Your task to perform on an android device: Go to Amazon Image 0: 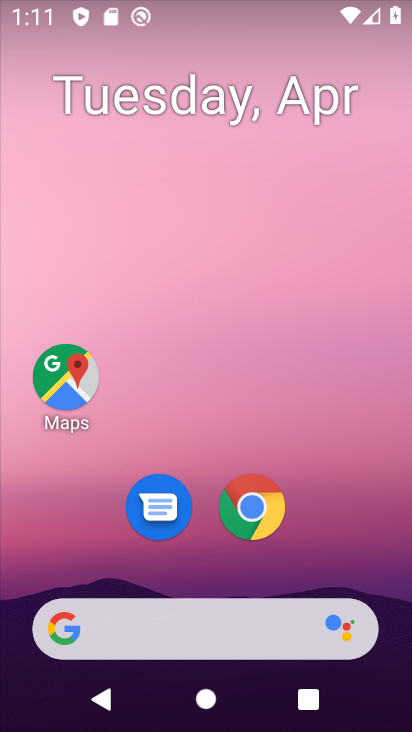
Step 0: click (255, 529)
Your task to perform on an android device: Go to Amazon Image 1: 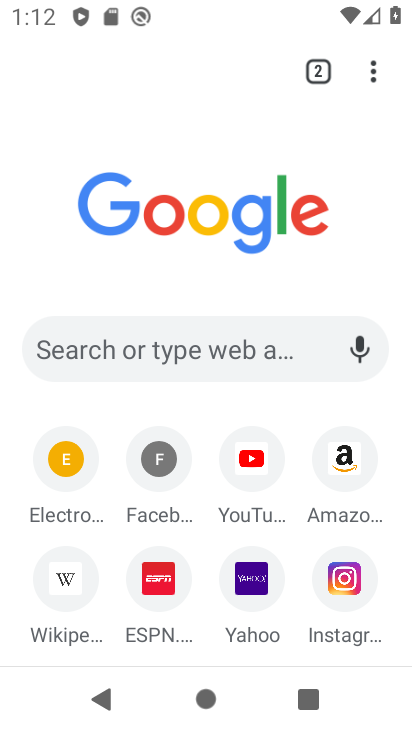
Step 1: click (336, 481)
Your task to perform on an android device: Go to Amazon Image 2: 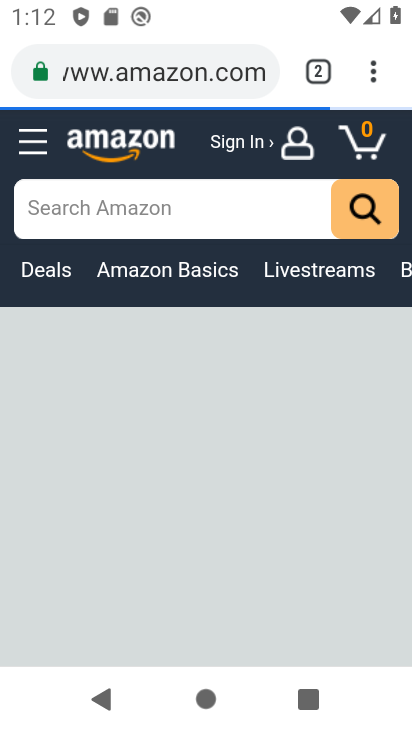
Step 2: task complete